Your task to perform on an android device: Add "bose soundlink mini" to the cart on ebay.com, then select checkout. Image 0: 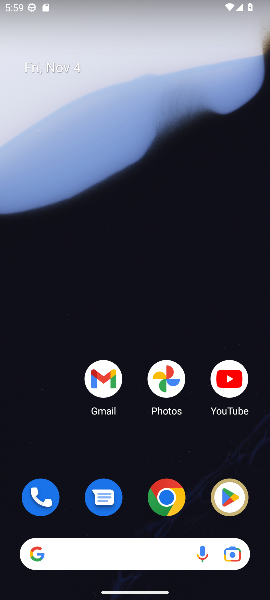
Step 0: click (168, 506)
Your task to perform on an android device: Add "bose soundlink mini" to the cart on ebay.com, then select checkout. Image 1: 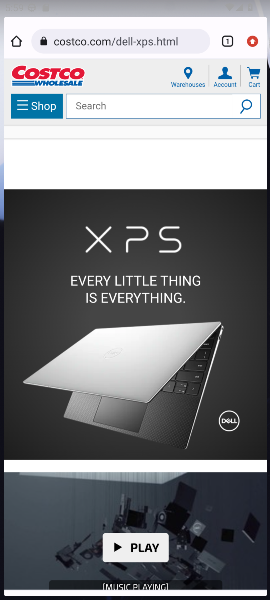
Step 1: drag from (138, 352) to (113, 580)
Your task to perform on an android device: Add "bose soundlink mini" to the cart on ebay.com, then select checkout. Image 2: 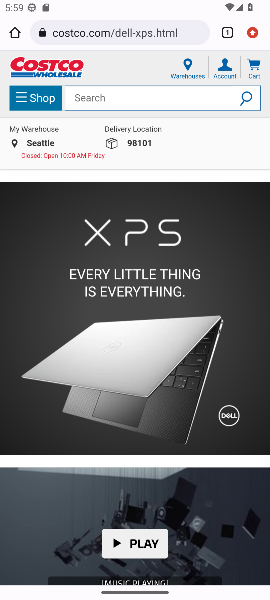
Step 2: click (122, 34)
Your task to perform on an android device: Add "bose soundlink mini" to the cart on ebay.com, then select checkout. Image 3: 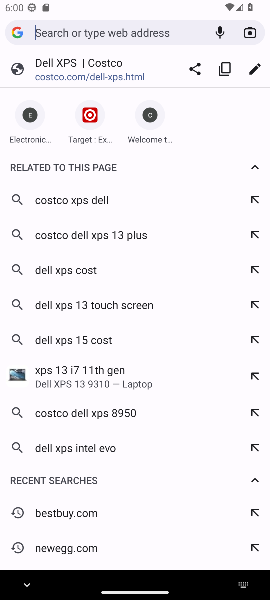
Step 3: type "ebay.com"
Your task to perform on an android device: Add "bose soundlink mini" to the cart on ebay.com, then select checkout. Image 4: 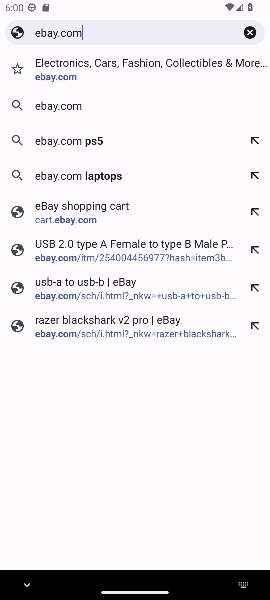
Step 4: click (58, 73)
Your task to perform on an android device: Add "bose soundlink mini" to the cart on ebay.com, then select checkout. Image 5: 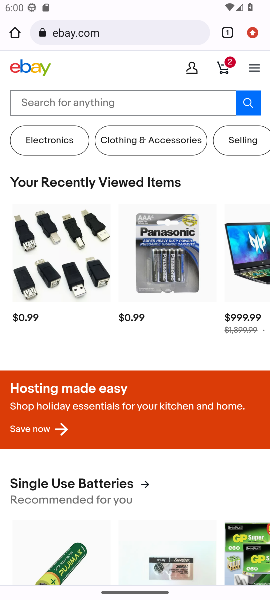
Step 5: click (103, 95)
Your task to perform on an android device: Add "bose soundlink mini" to the cart on ebay.com, then select checkout. Image 6: 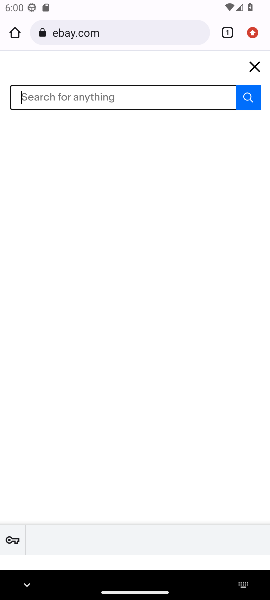
Step 6: type "bose soundlink mini"
Your task to perform on an android device: Add "bose soundlink mini" to the cart on ebay.com, then select checkout. Image 7: 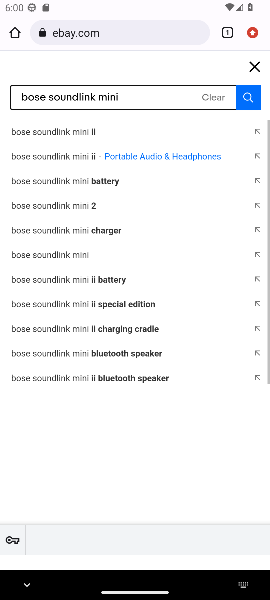
Step 7: click (248, 102)
Your task to perform on an android device: Add "bose soundlink mini" to the cart on ebay.com, then select checkout. Image 8: 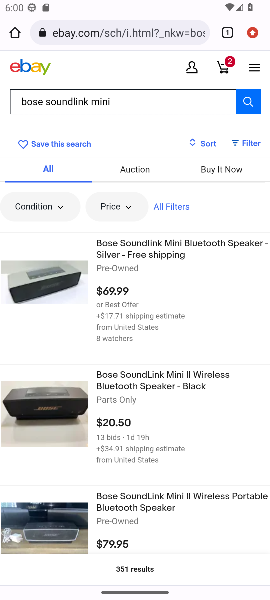
Step 8: click (41, 293)
Your task to perform on an android device: Add "bose soundlink mini" to the cart on ebay.com, then select checkout. Image 9: 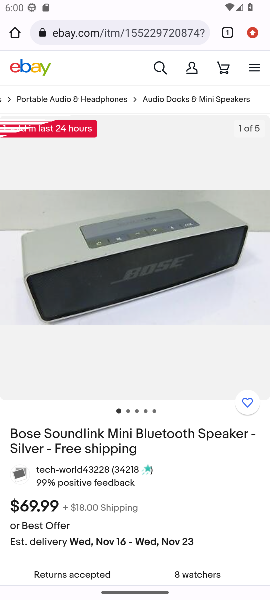
Step 9: drag from (145, 455) to (160, 166)
Your task to perform on an android device: Add "bose soundlink mini" to the cart on ebay.com, then select checkout. Image 10: 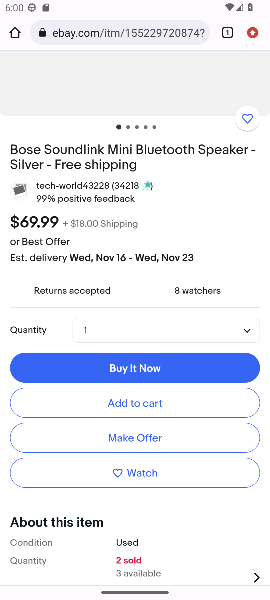
Step 10: click (133, 406)
Your task to perform on an android device: Add "bose soundlink mini" to the cart on ebay.com, then select checkout. Image 11: 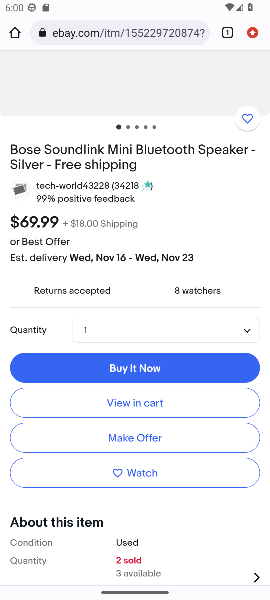
Step 11: click (133, 406)
Your task to perform on an android device: Add "bose soundlink mini" to the cart on ebay.com, then select checkout. Image 12: 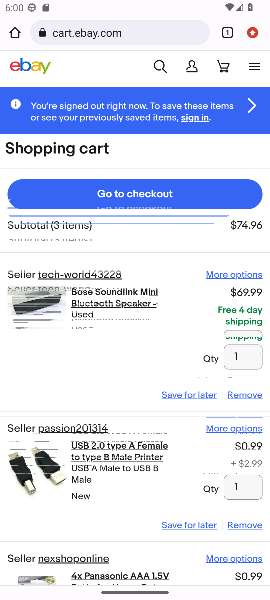
Step 12: click (116, 202)
Your task to perform on an android device: Add "bose soundlink mini" to the cart on ebay.com, then select checkout. Image 13: 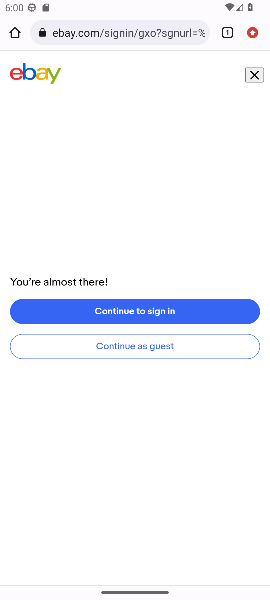
Step 13: task complete